Your task to perform on an android device: Show me popular videos on Youtube Image 0: 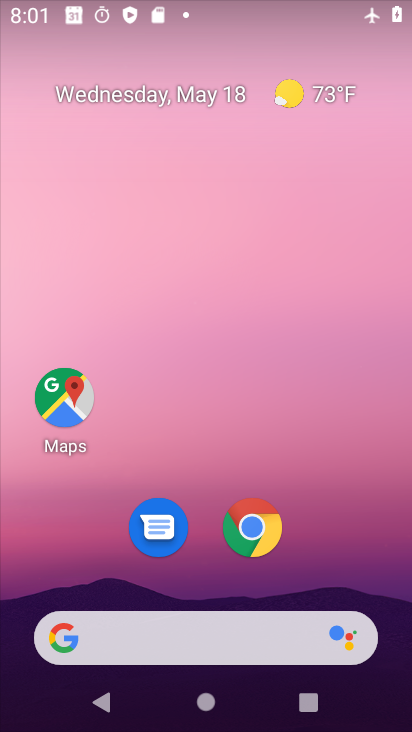
Step 0: drag from (391, 599) to (375, 11)
Your task to perform on an android device: Show me popular videos on Youtube Image 1: 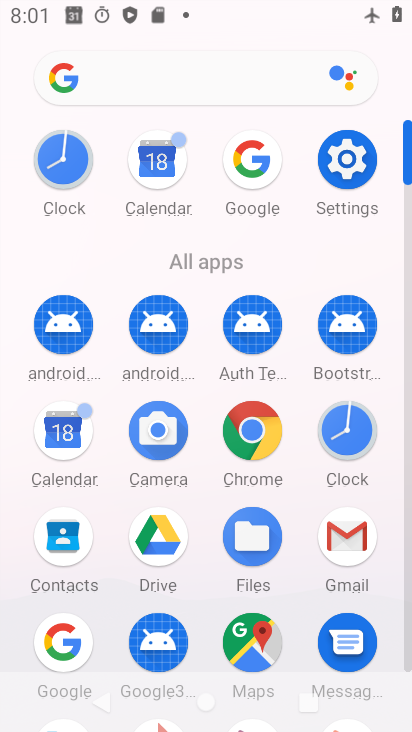
Step 1: drag from (293, 613) to (261, 169)
Your task to perform on an android device: Show me popular videos on Youtube Image 2: 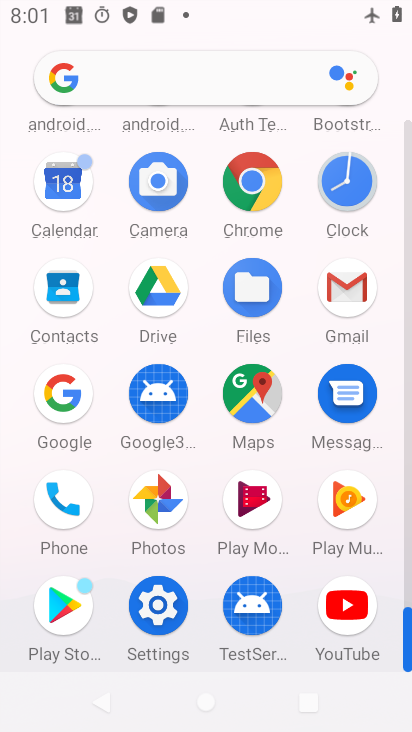
Step 2: click (339, 605)
Your task to perform on an android device: Show me popular videos on Youtube Image 3: 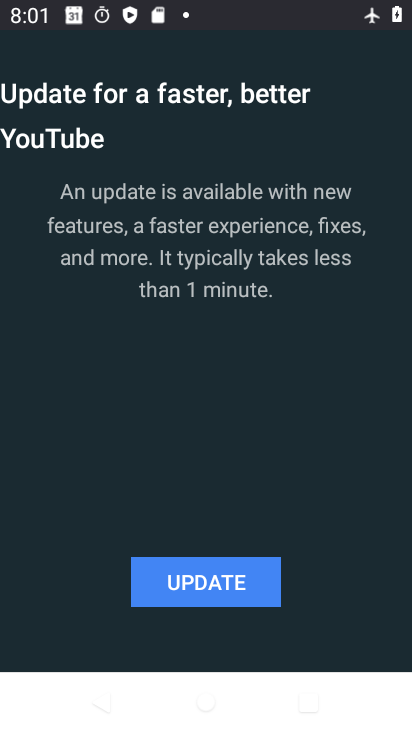
Step 3: click (132, 564)
Your task to perform on an android device: Show me popular videos on Youtube Image 4: 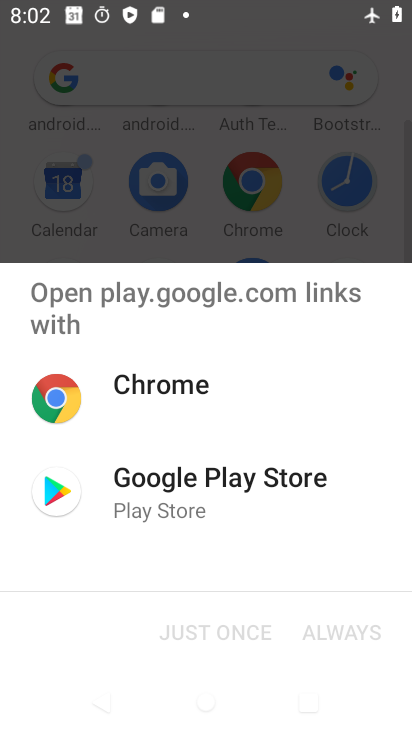
Step 4: click (138, 486)
Your task to perform on an android device: Show me popular videos on Youtube Image 5: 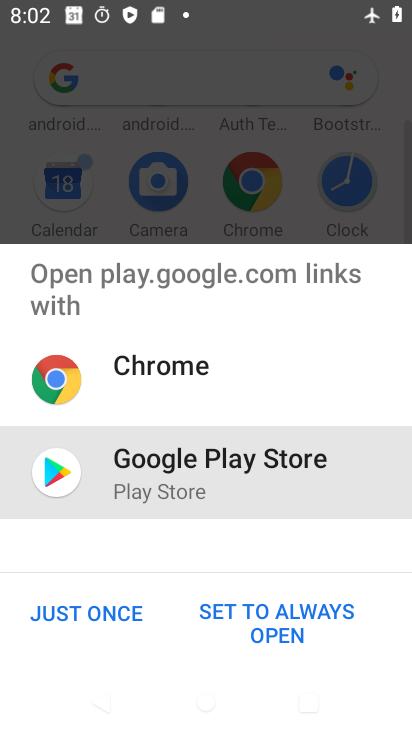
Step 5: click (122, 607)
Your task to perform on an android device: Show me popular videos on Youtube Image 6: 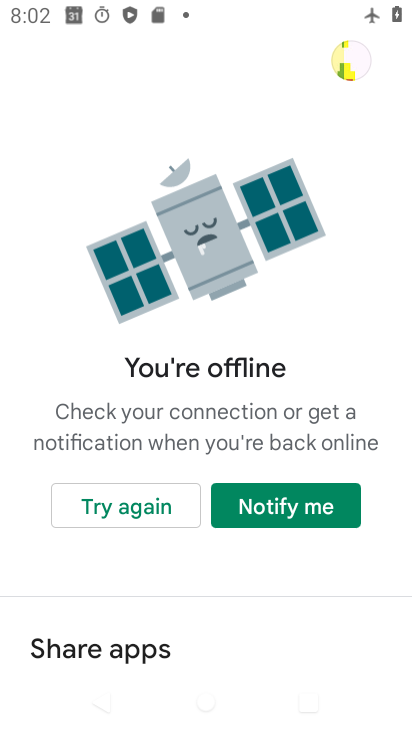
Step 6: task complete